Your task to perform on an android device: turn on airplane mode Image 0: 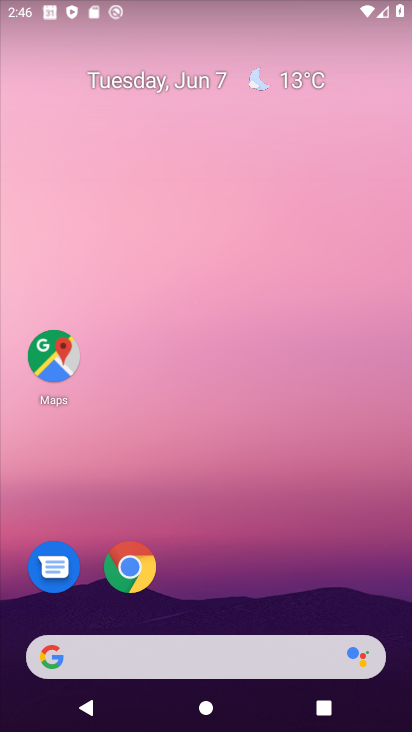
Step 0: drag from (352, 11) to (280, 609)
Your task to perform on an android device: turn on airplane mode Image 1: 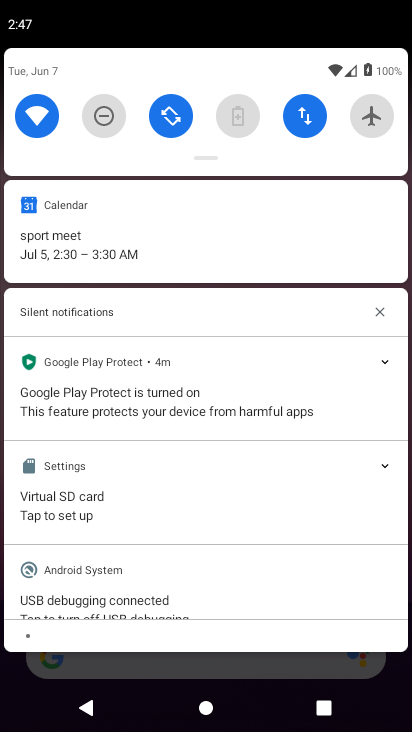
Step 1: click (366, 124)
Your task to perform on an android device: turn on airplane mode Image 2: 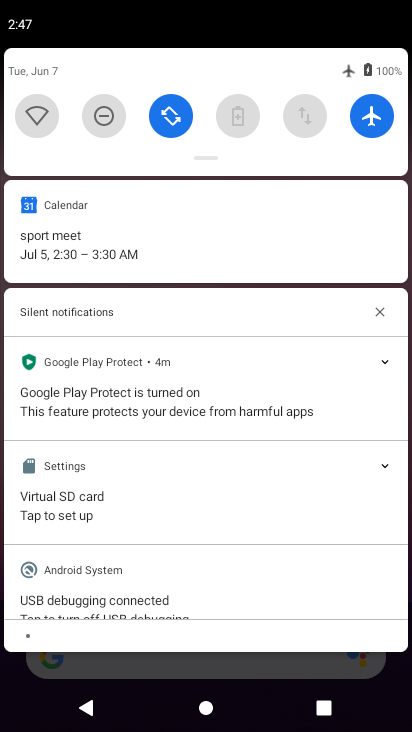
Step 2: task complete